Your task to perform on an android device: Go to CNN.com Image 0: 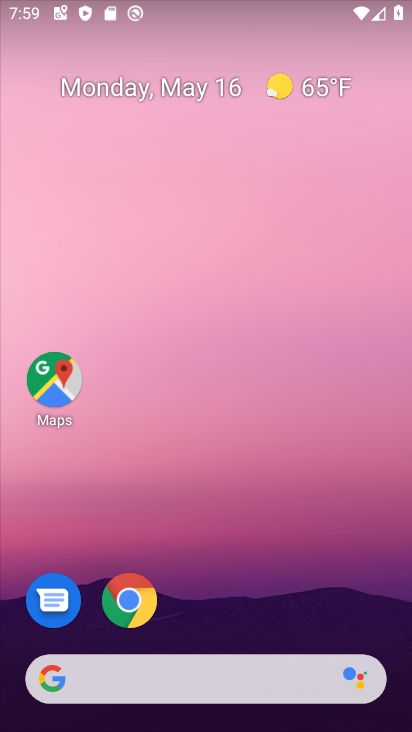
Step 0: drag from (181, 642) to (293, 261)
Your task to perform on an android device: Go to CNN.com Image 1: 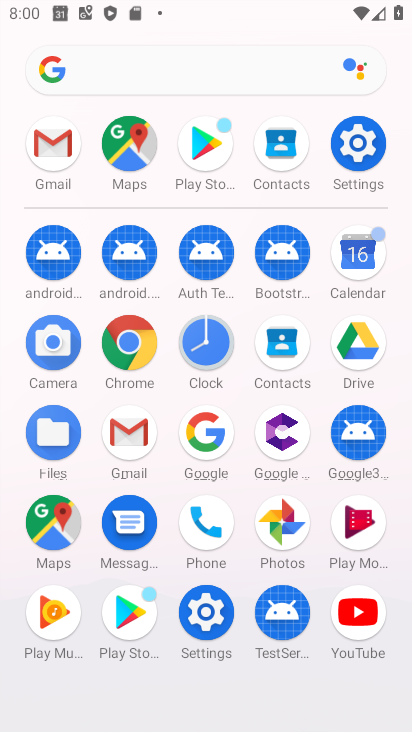
Step 1: click (136, 72)
Your task to perform on an android device: Go to CNN.com Image 2: 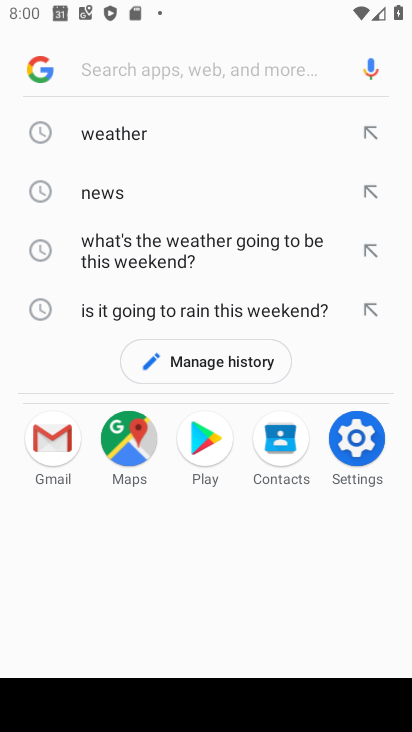
Step 2: click (196, 66)
Your task to perform on an android device: Go to CNN.com Image 3: 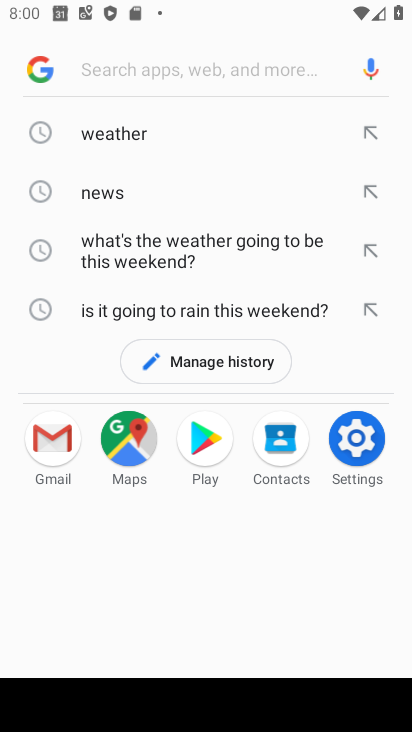
Step 3: type "cnn"
Your task to perform on an android device: Go to CNN.com Image 4: 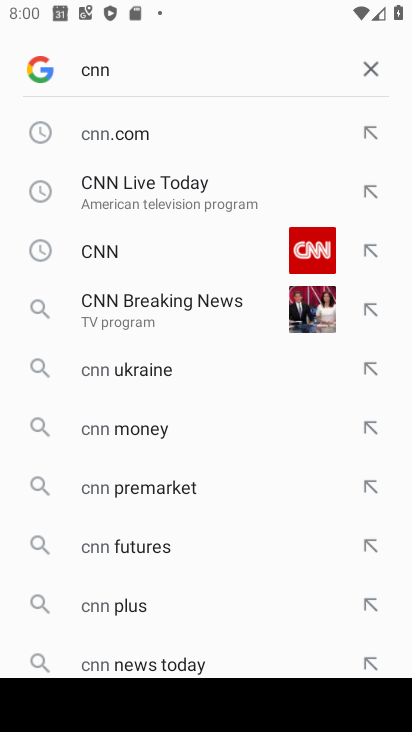
Step 4: click (129, 128)
Your task to perform on an android device: Go to CNN.com Image 5: 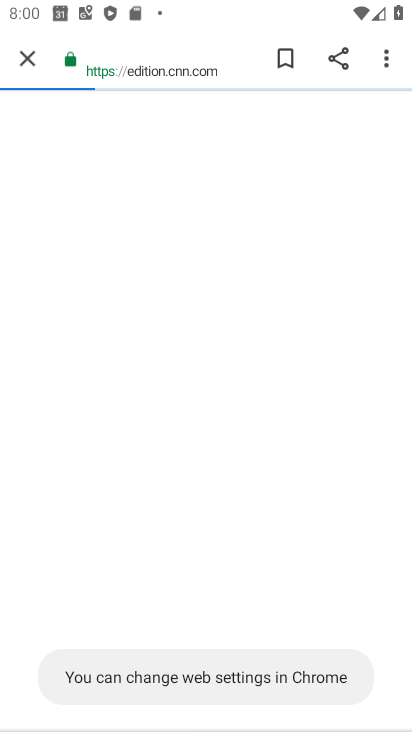
Step 5: task complete